Your task to perform on an android device: Open Chrome and go to settings Image 0: 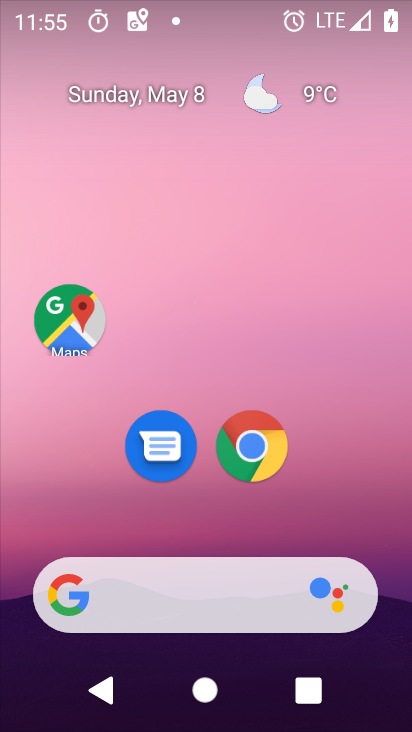
Step 0: click (262, 449)
Your task to perform on an android device: Open Chrome and go to settings Image 1: 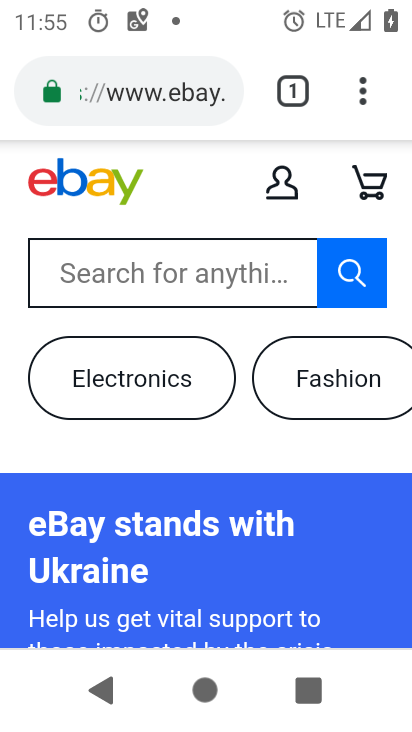
Step 1: click (365, 98)
Your task to perform on an android device: Open Chrome and go to settings Image 2: 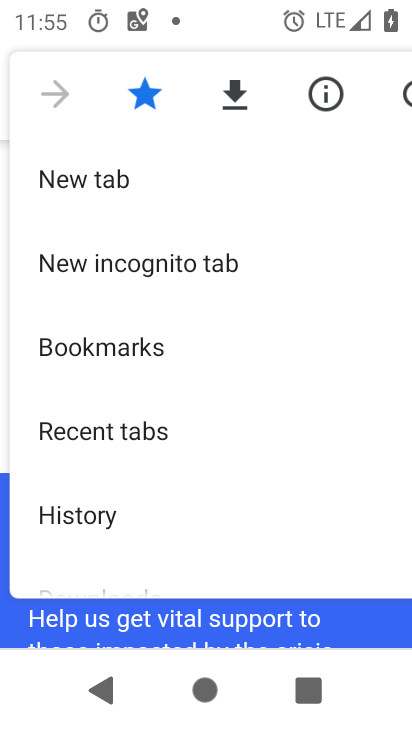
Step 2: drag from (195, 489) to (232, 121)
Your task to perform on an android device: Open Chrome and go to settings Image 3: 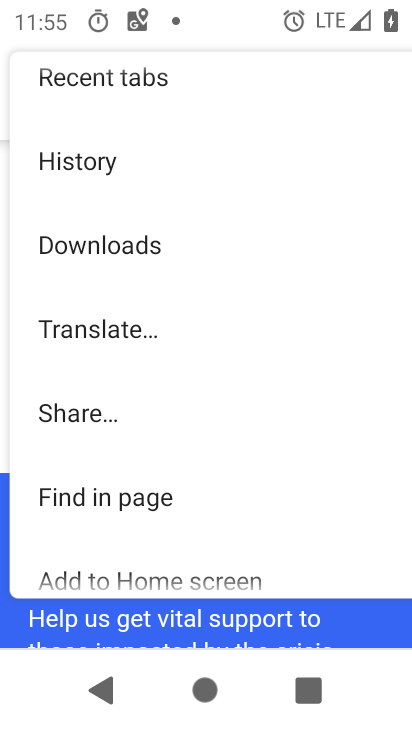
Step 3: drag from (151, 467) to (201, 184)
Your task to perform on an android device: Open Chrome and go to settings Image 4: 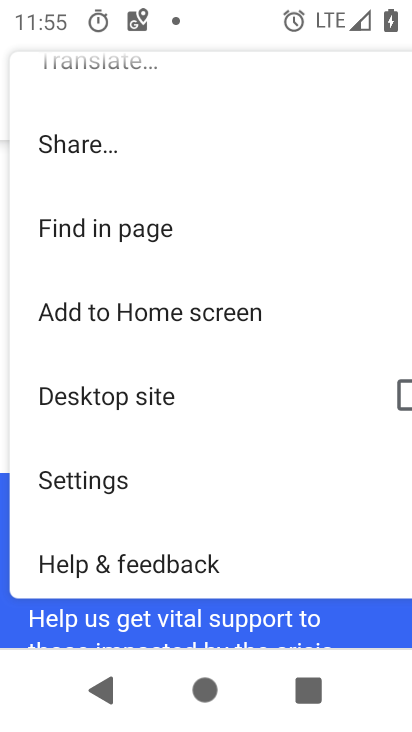
Step 4: click (99, 482)
Your task to perform on an android device: Open Chrome and go to settings Image 5: 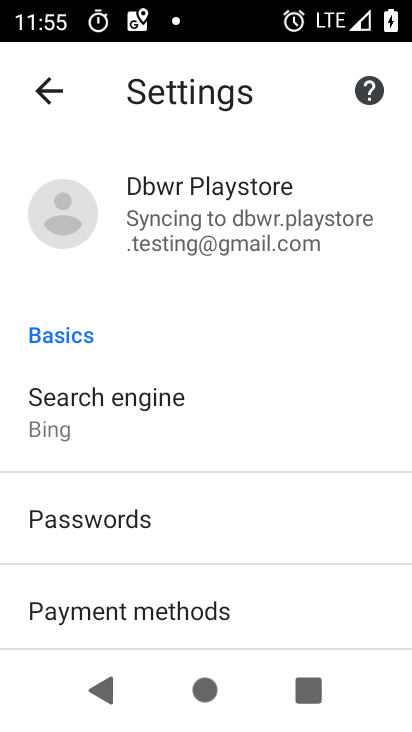
Step 5: task complete